Your task to perform on an android device: check the backup settings in the google photos Image 0: 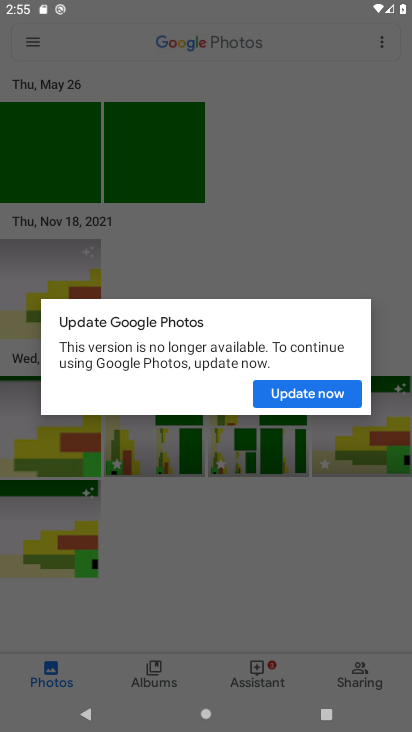
Step 0: press home button
Your task to perform on an android device: check the backup settings in the google photos Image 1: 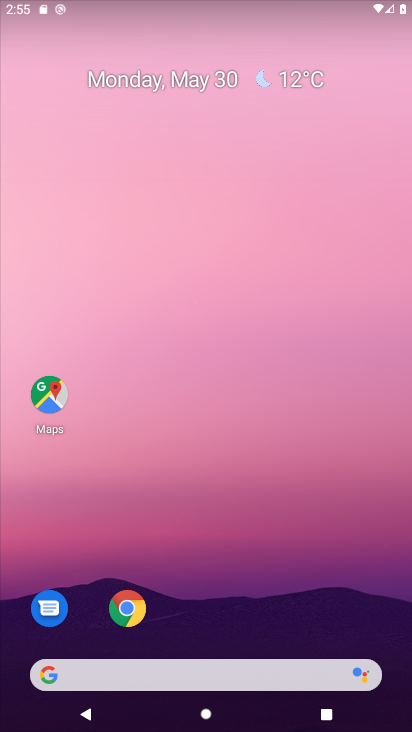
Step 1: drag from (311, 584) to (251, 166)
Your task to perform on an android device: check the backup settings in the google photos Image 2: 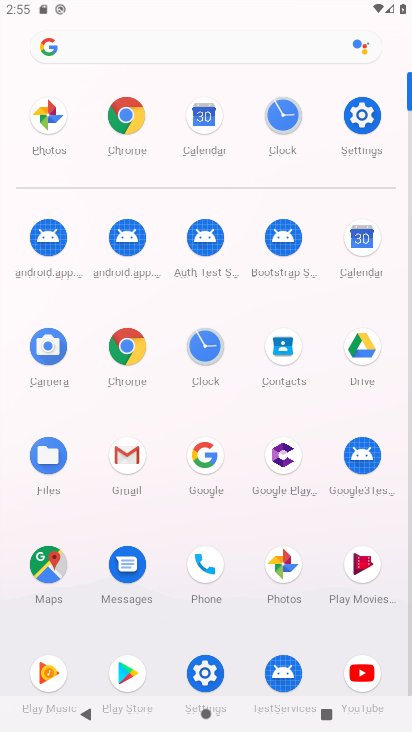
Step 2: click (357, 101)
Your task to perform on an android device: check the backup settings in the google photos Image 3: 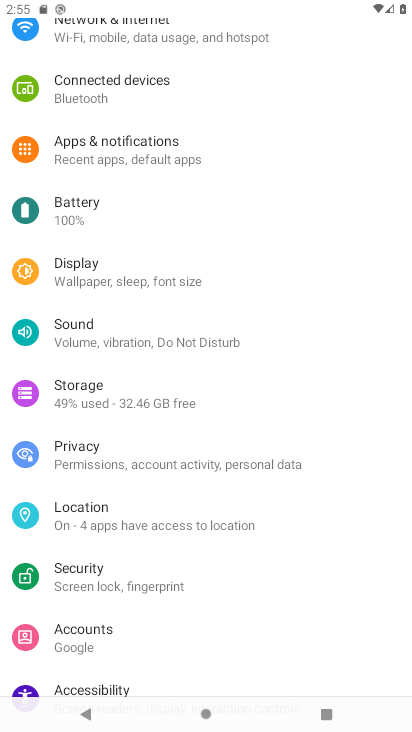
Step 3: press home button
Your task to perform on an android device: check the backup settings in the google photos Image 4: 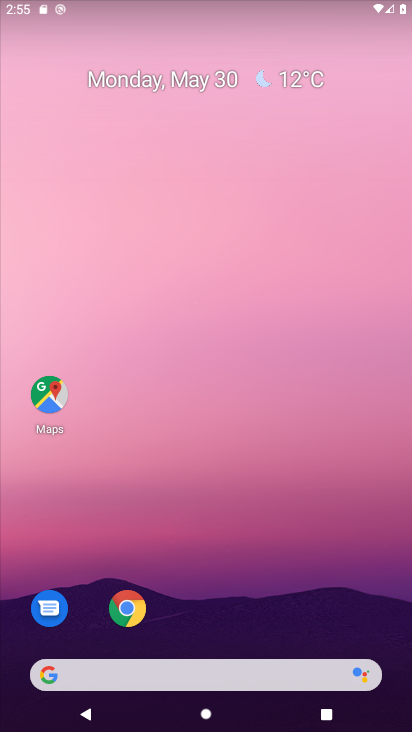
Step 4: drag from (311, 558) to (263, 19)
Your task to perform on an android device: check the backup settings in the google photos Image 5: 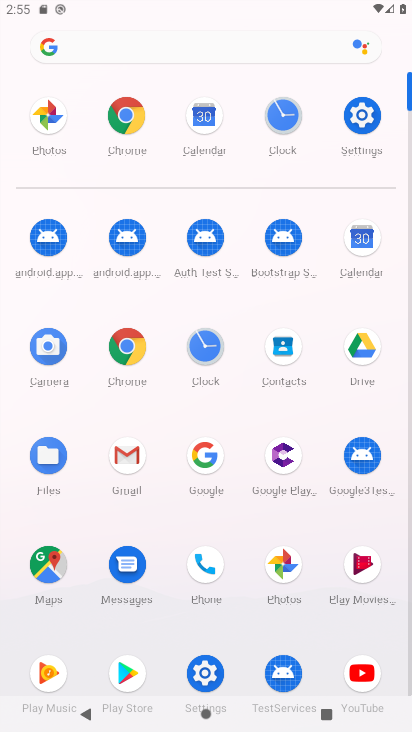
Step 5: click (279, 558)
Your task to perform on an android device: check the backup settings in the google photos Image 6: 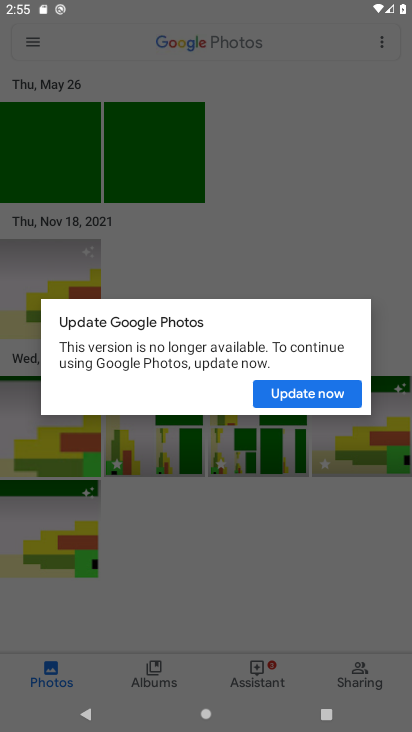
Step 6: click (285, 389)
Your task to perform on an android device: check the backup settings in the google photos Image 7: 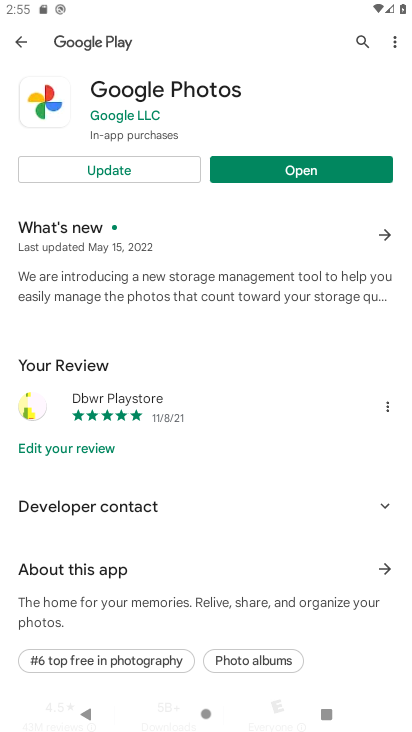
Step 7: click (147, 162)
Your task to perform on an android device: check the backup settings in the google photos Image 8: 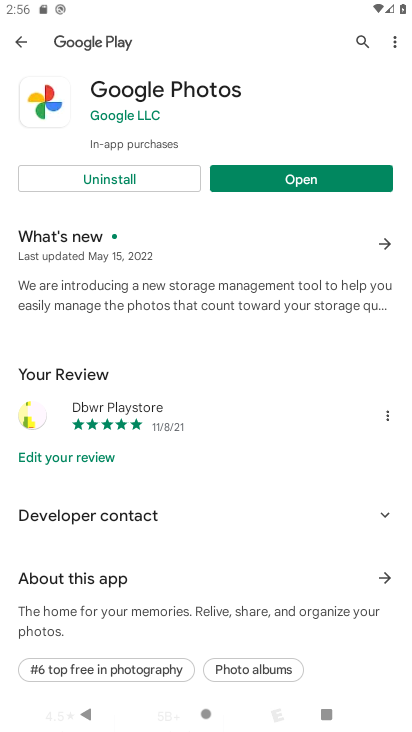
Step 8: click (282, 182)
Your task to perform on an android device: check the backup settings in the google photos Image 9: 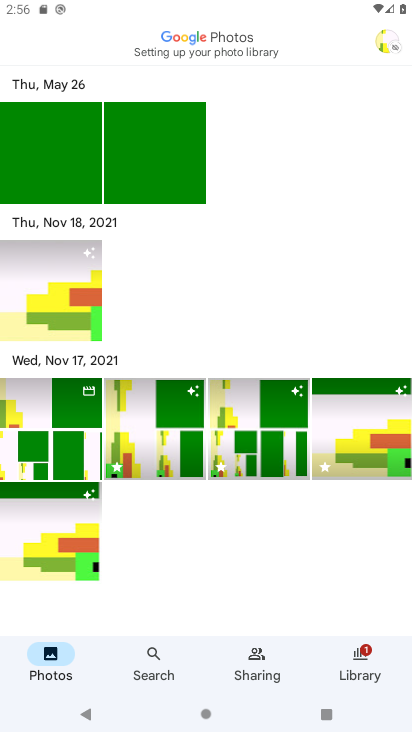
Step 9: click (383, 30)
Your task to perform on an android device: check the backup settings in the google photos Image 10: 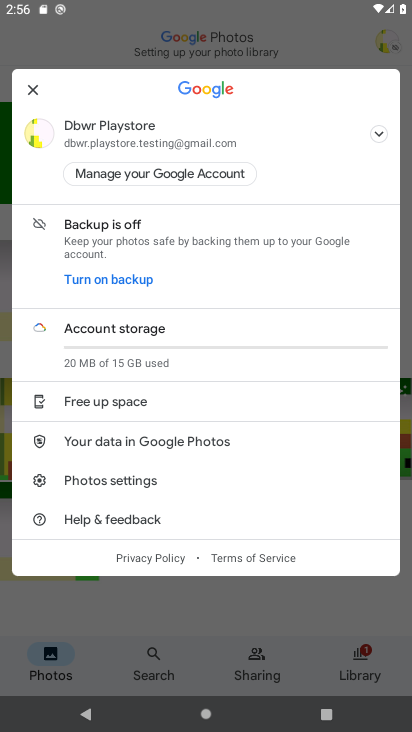
Step 10: click (146, 479)
Your task to perform on an android device: check the backup settings in the google photos Image 11: 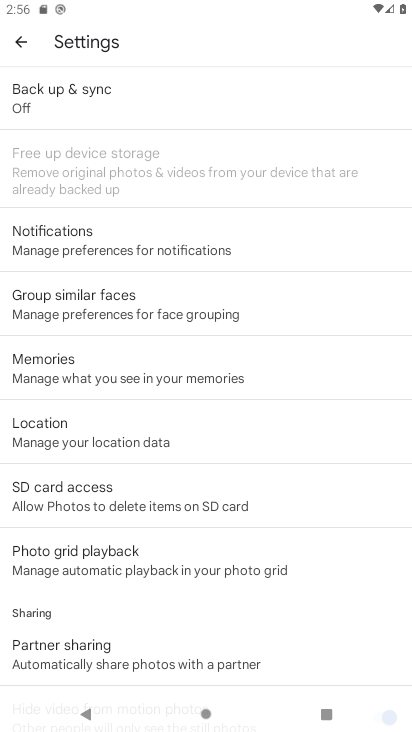
Step 11: click (153, 113)
Your task to perform on an android device: check the backup settings in the google photos Image 12: 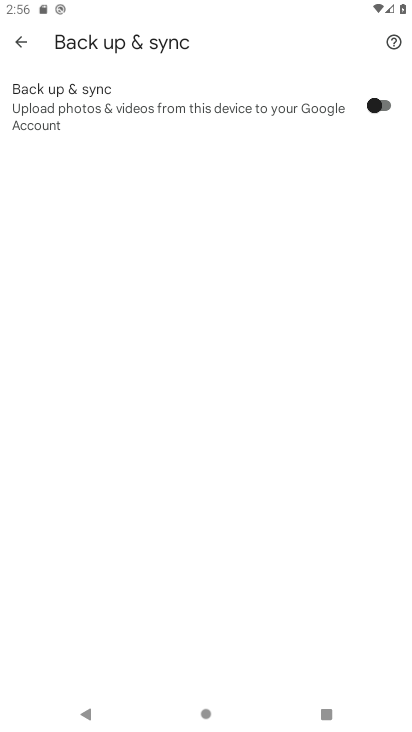
Step 12: task complete